Your task to perform on an android device: When is my next meeting? Image 0: 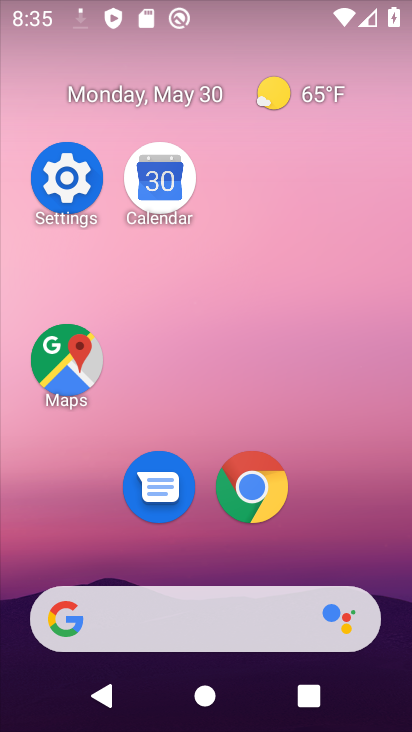
Step 0: click (196, 167)
Your task to perform on an android device: When is my next meeting? Image 1: 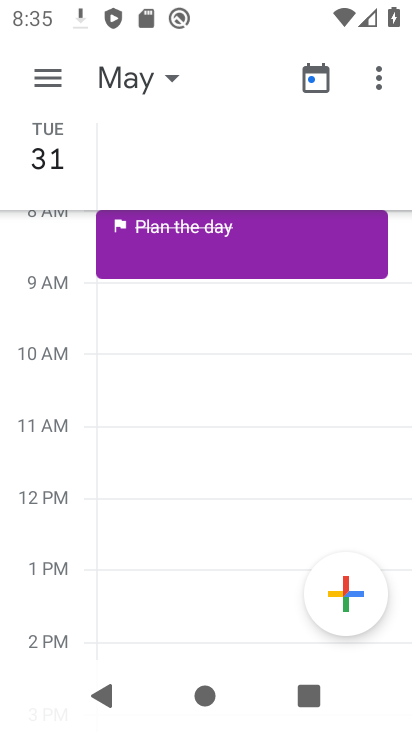
Step 1: task complete